Your task to perform on an android device: change your default location settings in chrome Image 0: 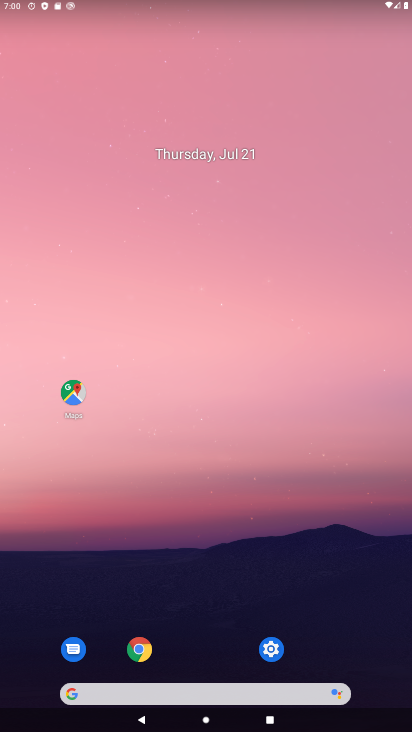
Step 0: click (144, 658)
Your task to perform on an android device: change your default location settings in chrome Image 1: 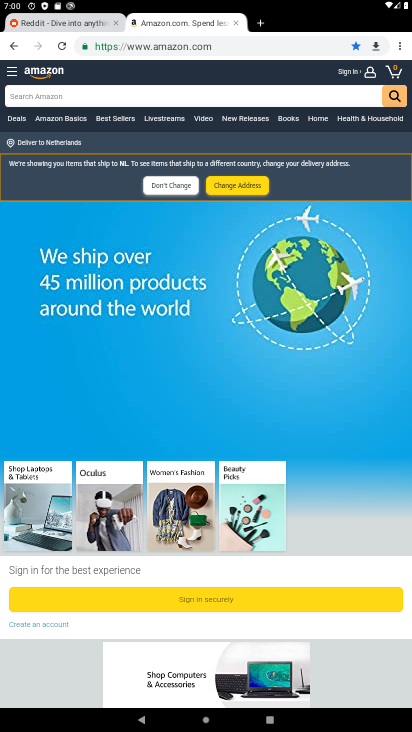
Step 1: click (401, 47)
Your task to perform on an android device: change your default location settings in chrome Image 2: 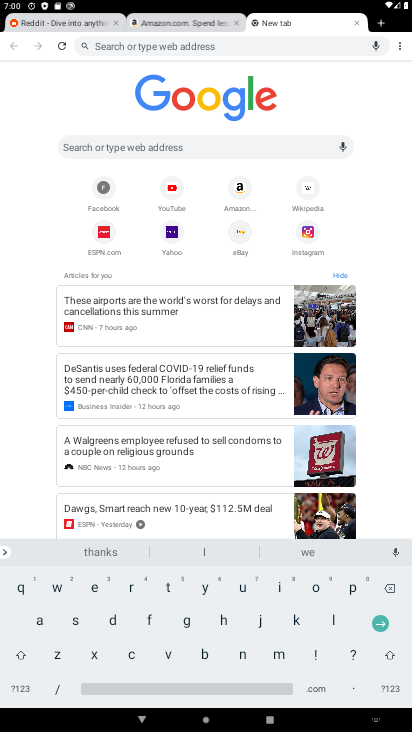
Step 2: click (396, 51)
Your task to perform on an android device: change your default location settings in chrome Image 3: 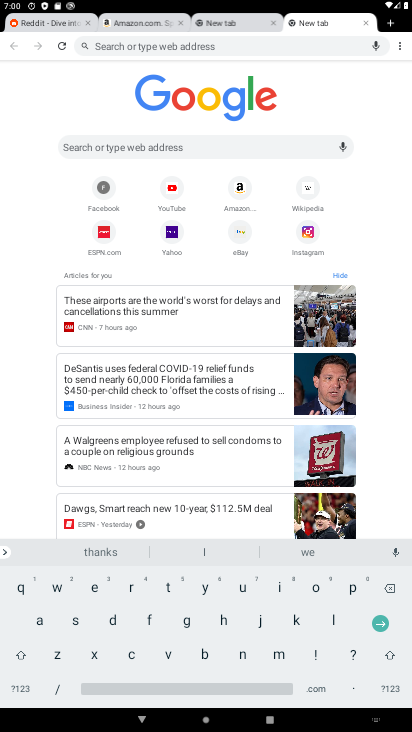
Step 3: click (373, 32)
Your task to perform on an android device: change your default location settings in chrome Image 4: 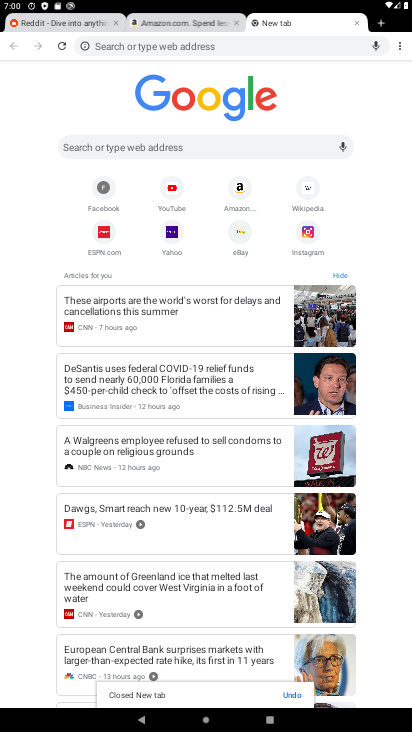
Step 4: click (397, 45)
Your task to perform on an android device: change your default location settings in chrome Image 5: 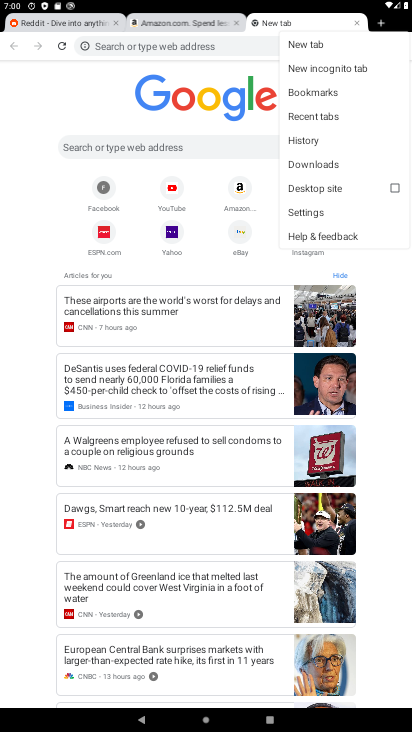
Step 5: click (311, 212)
Your task to perform on an android device: change your default location settings in chrome Image 6: 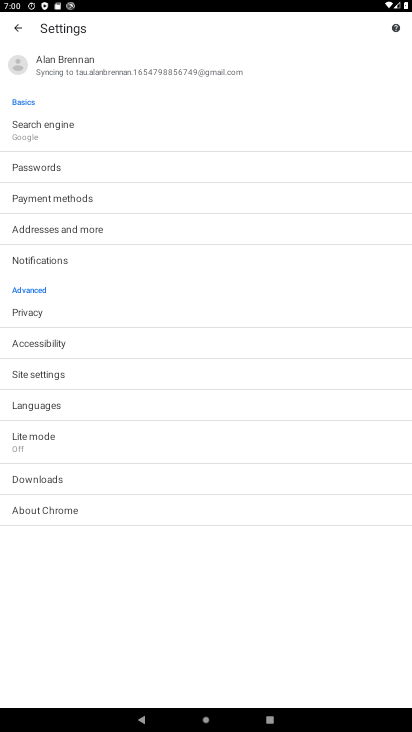
Step 6: click (34, 375)
Your task to perform on an android device: change your default location settings in chrome Image 7: 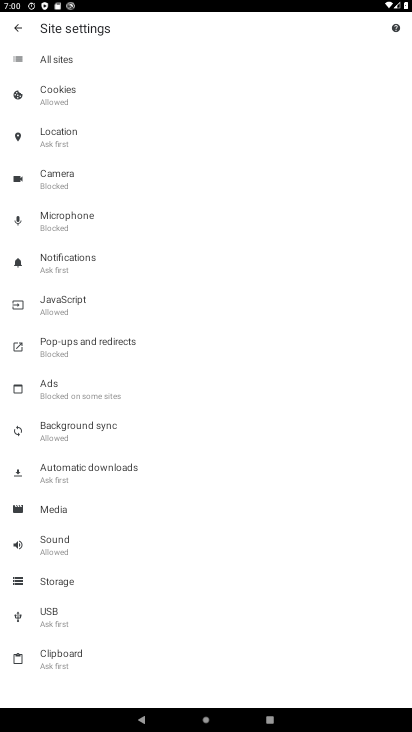
Step 7: click (59, 137)
Your task to perform on an android device: change your default location settings in chrome Image 8: 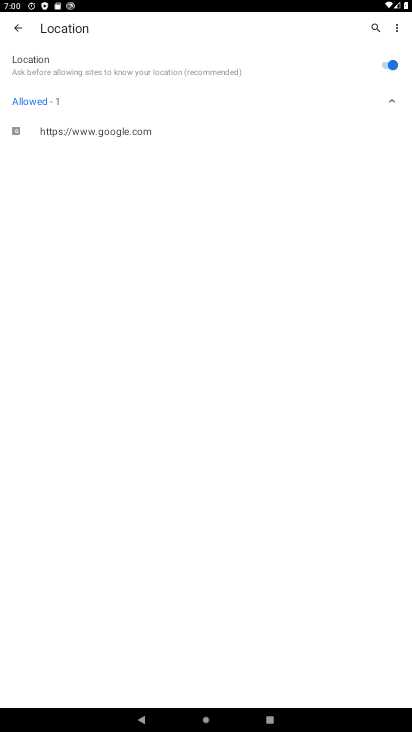
Step 8: click (391, 68)
Your task to perform on an android device: change your default location settings in chrome Image 9: 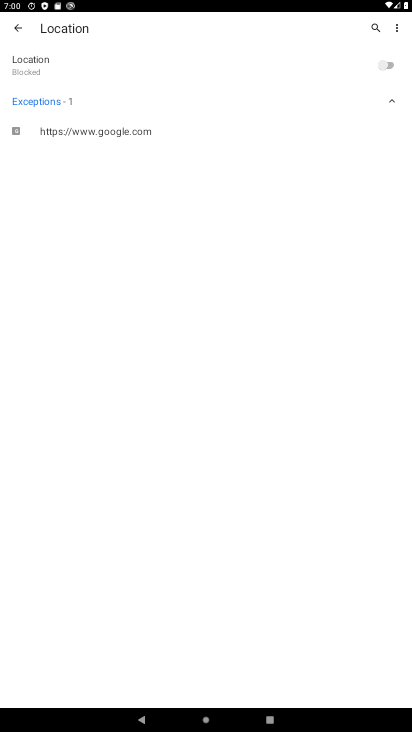
Step 9: task complete